Your task to perform on an android device: Open Google Chrome and open the bookmarks view Image 0: 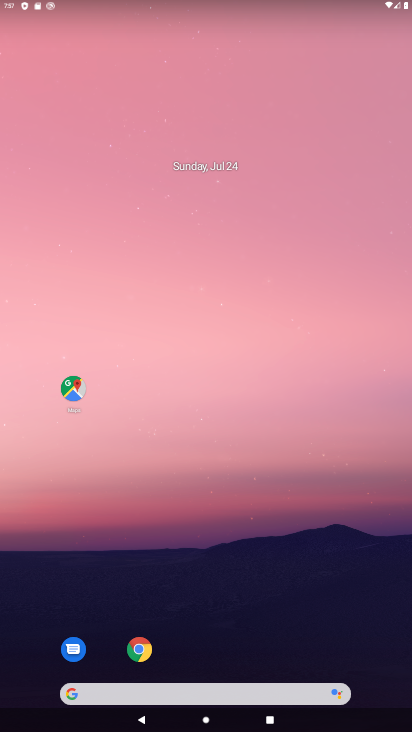
Step 0: drag from (231, 697) to (152, 118)
Your task to perform on an android device: Open Google Chrome and open the bookmarks view Image 1: 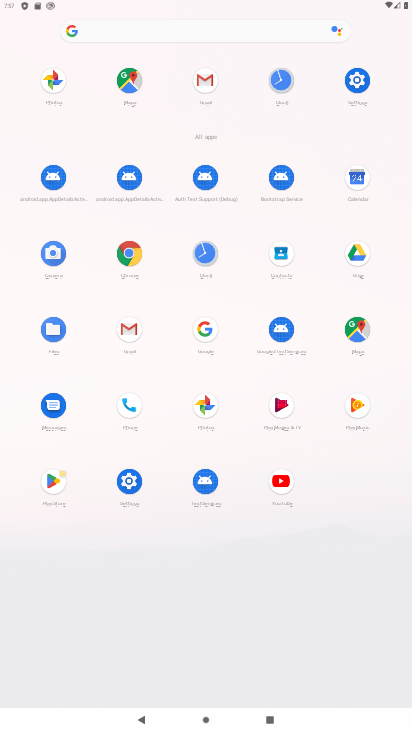
Step 1: click (122, 254)
Your task to perform on an android device: Open Google Chrome and open the bookmarks view Image 2: 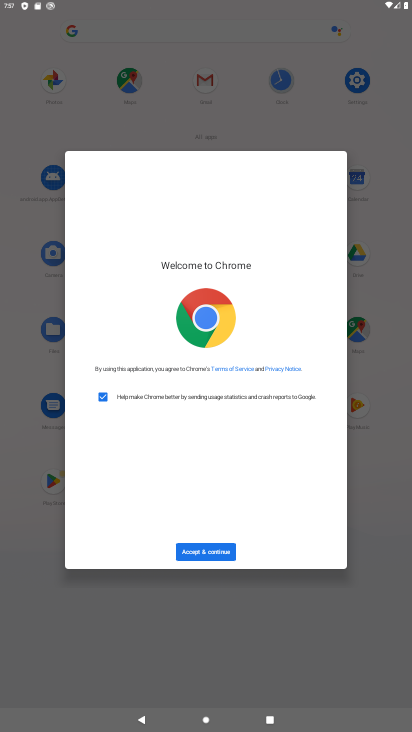
Step 2: click (200, 547)
Your task to perform on an android device: Open Google Chrome and open the bookmarks view Image 3: 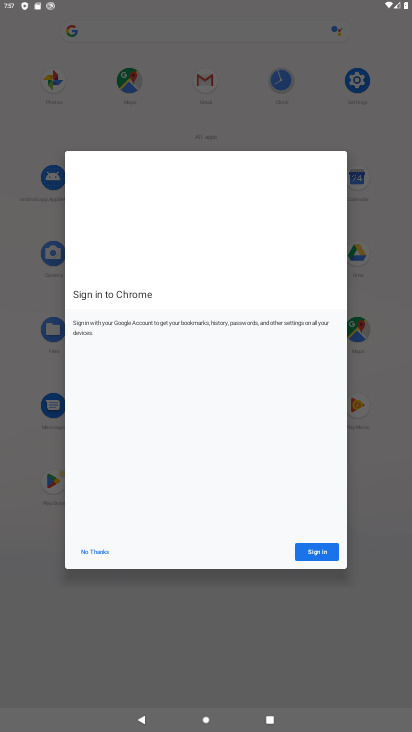
Step 3: click (317, 559)
Your task to perform on an android device: Open Google Chrome and open the bookmarks view Image 4: 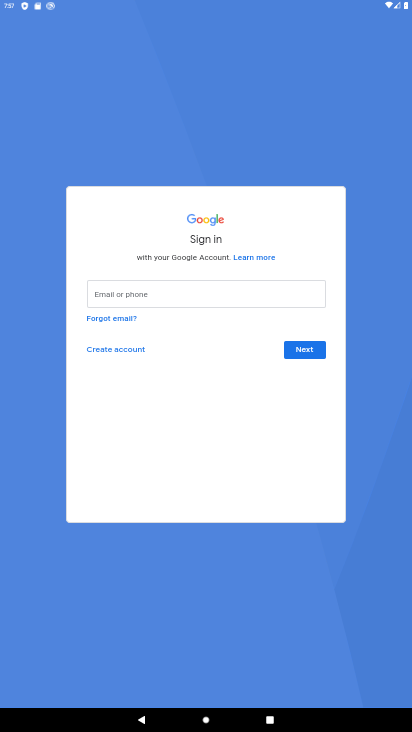
Step 4: press back button
Your task to perform on an android device: Open Google Chrome and open the bookmarks view Image 5: 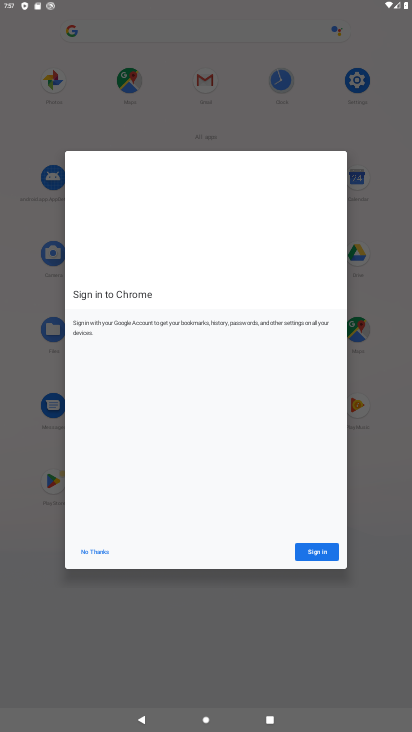
Step 5: click (306, 545)
Your task to perform on an android device: Open Google Chrome and open the bookmarks view Image 6: 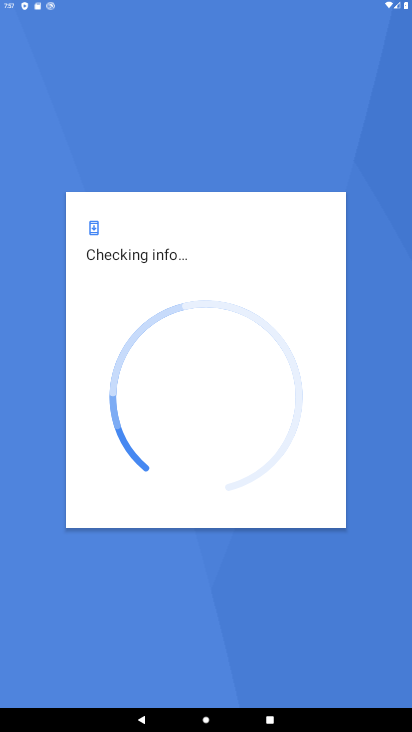
Step 6: task complete